Your task to perform on an android device: set an alarm Image 0: 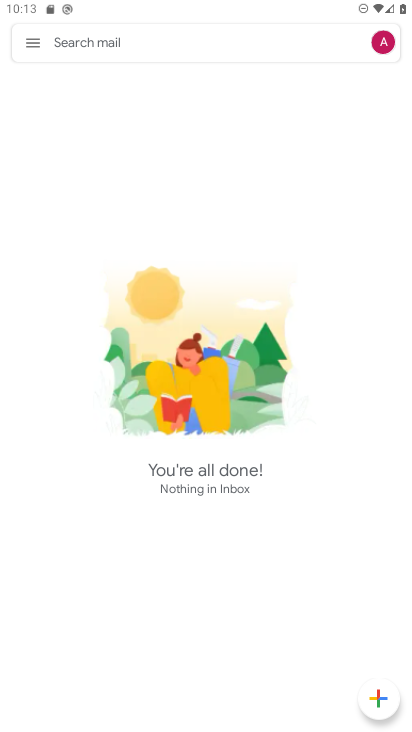
Step 0: press home button
Your task to perform on an android device: set an alarm Image 1: 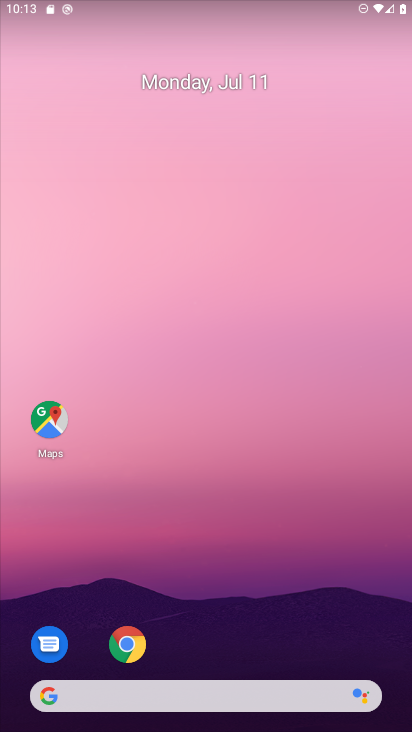
Step 1: drag from (179, 664) to (109, 400)
Your task to perform on an android device: set an alarm Image 2: 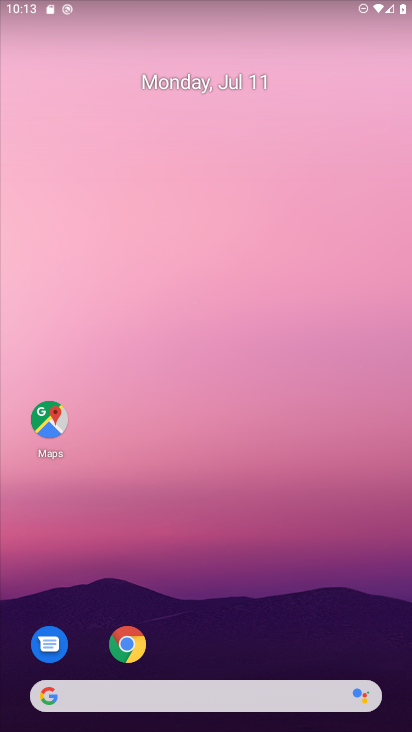
Step 2: drag from (194, 695) to (197, 167)
Your task to perform on an android device: set an alarm Image 3: 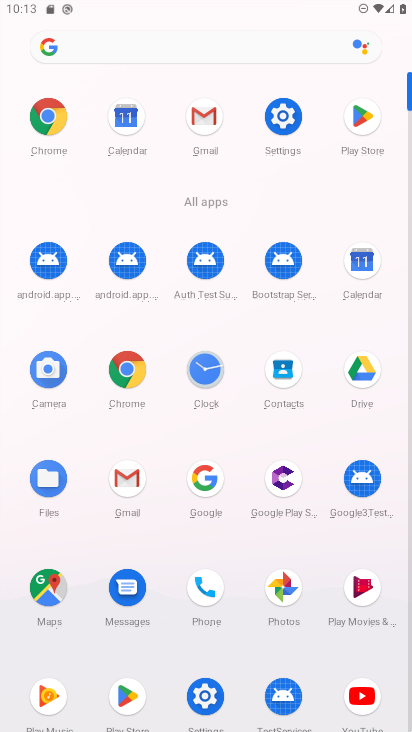
Step 3: click (203, 374)
Your task to perform on an android device: set an alarm Image 4: 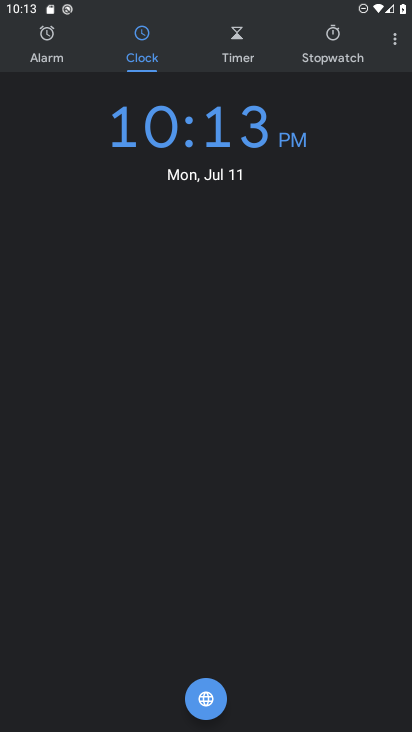
Step 4: click (63, 50)
Your task to perform on an android device: set an alarm Image 5: 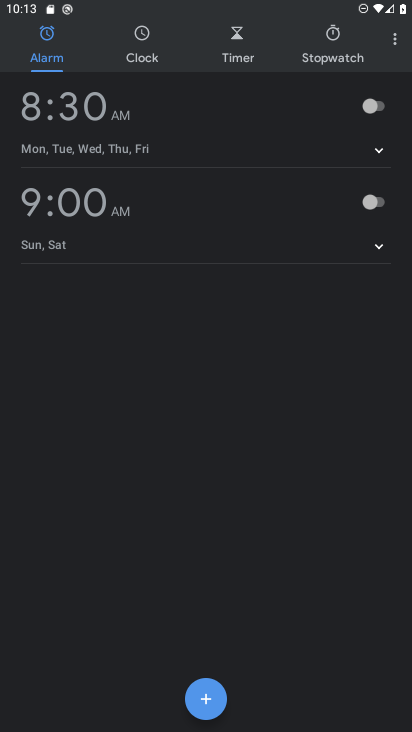
Step 5: click (203, 693)
Your task to perform on an android device: set an alarm Image 6: 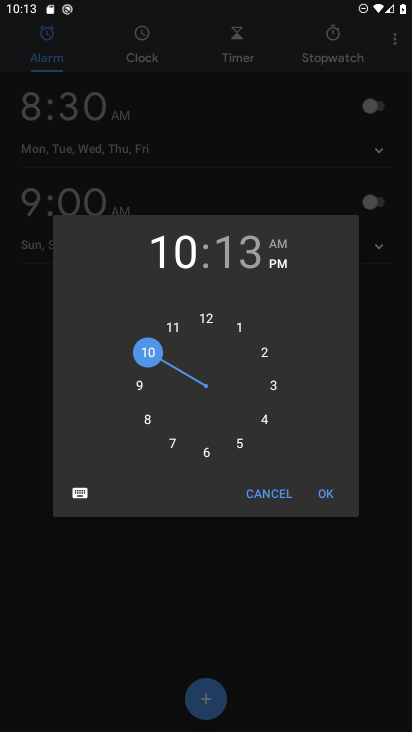
Step 6: click (202, 458)
Your task to perform on an android device: set an alarm Image 7: 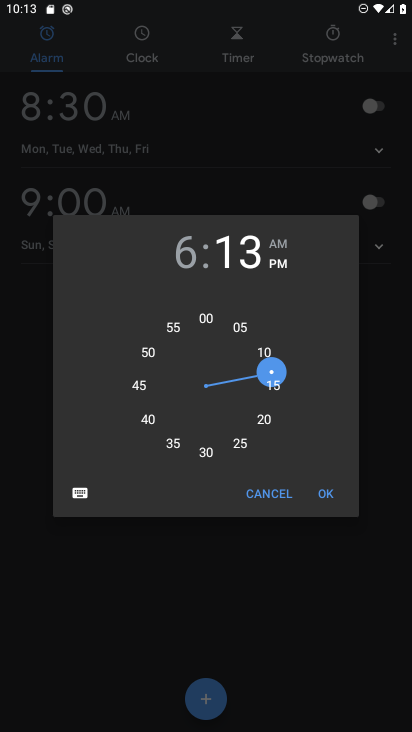
Step 7: click (204, 320)
Your task to perform on an android device: set an alarm Image 8: 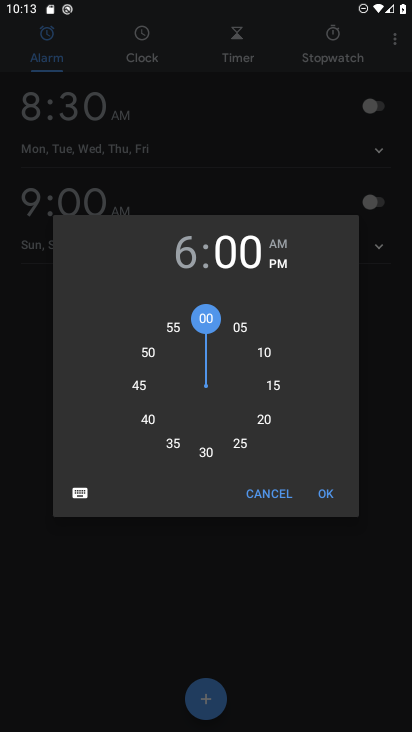
Step 8: click (329, 495)
Your task to perform on an android device: set an alarm Image 9: 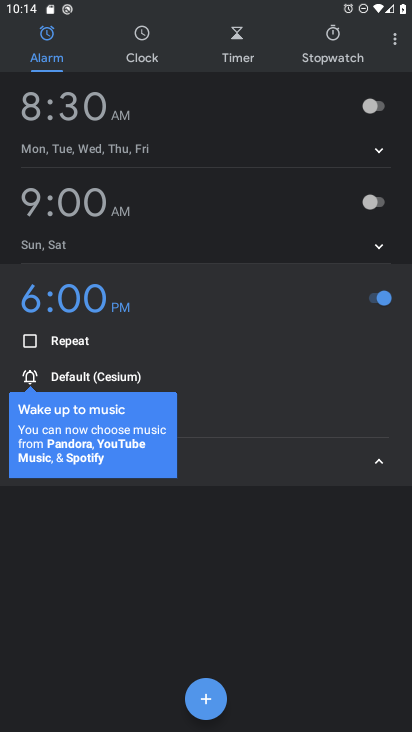
Step 9: task complete